Your task to perform on an android device: Open privacy settings Image 0: 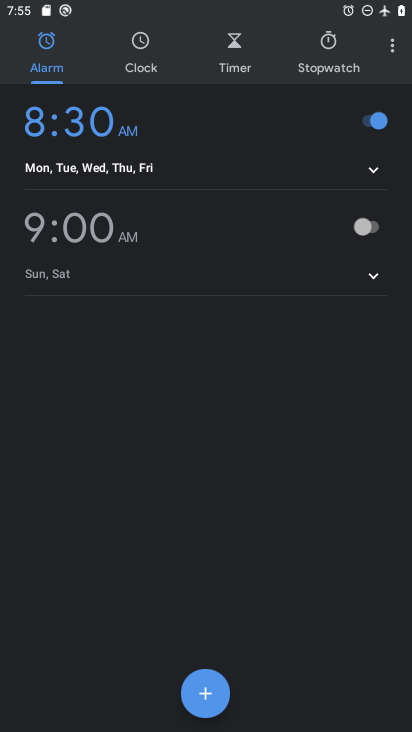
Step 0: press home button
Your task to perform on an android device: Open privacy settings Image 1: 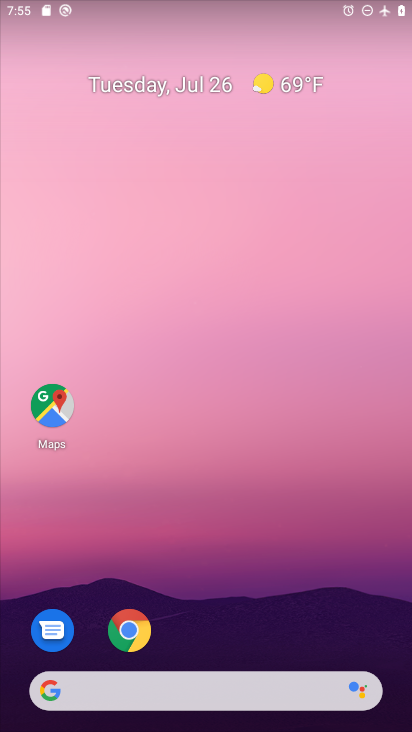
Step 1: drag from (209, 609) to (223, 160)
Your task to perform on an android device: Open privacy settings Image 2: 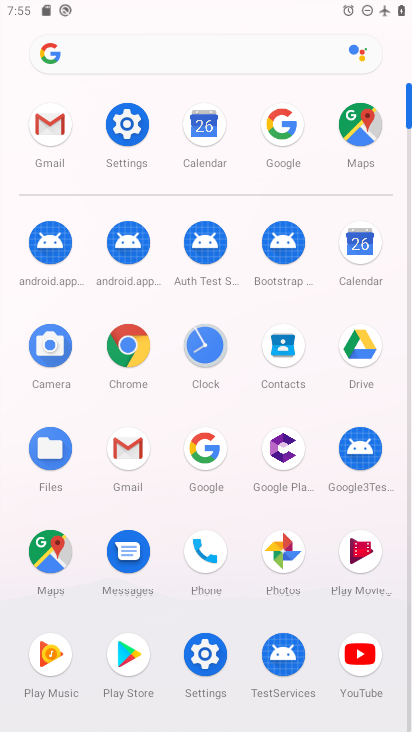
Step 2: click (208, 666)
Your task to perform on an android device: Open privacy settings Image 3: 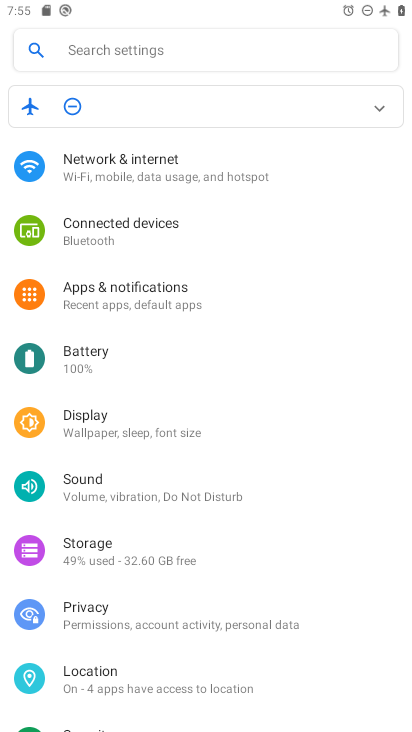
Step 3: click (93, 612)
Your task to perform on an android device: Open privacy settings Image 4: 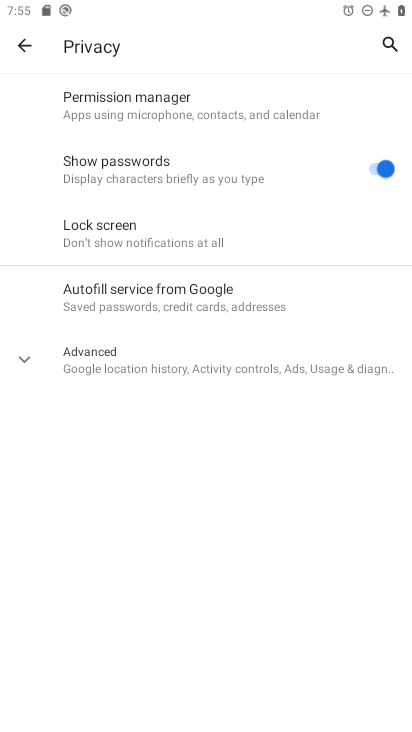
Step 4: task complete